Your task to perform on an android device: open app "DuckDuckGo Privacy Browser" (install if not already installed), go to login, and select forgot password Image 0: 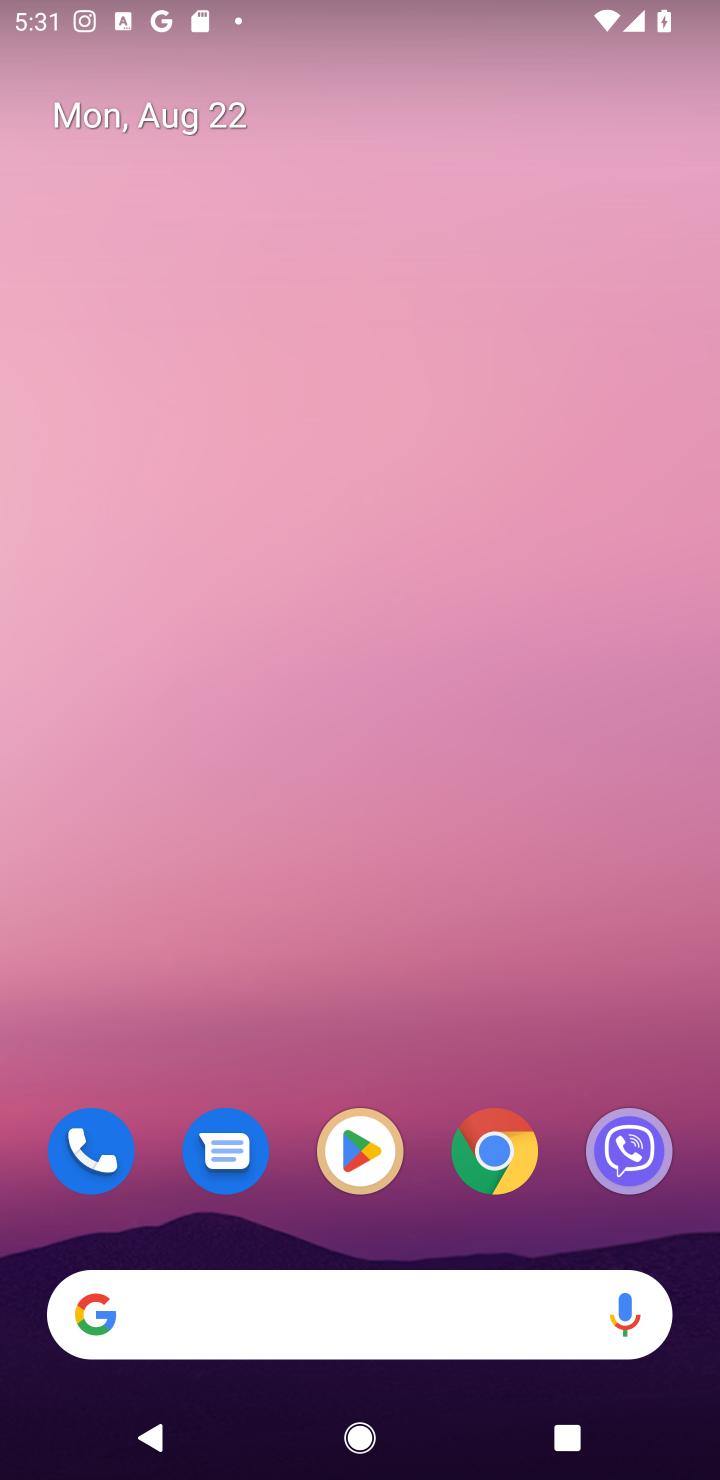
Step 0: press home button
Your task to perform on an android device: open app "DuckDuckGo Privacy Browser" (install if not already installed), go to login, and select forgot password Image 1: 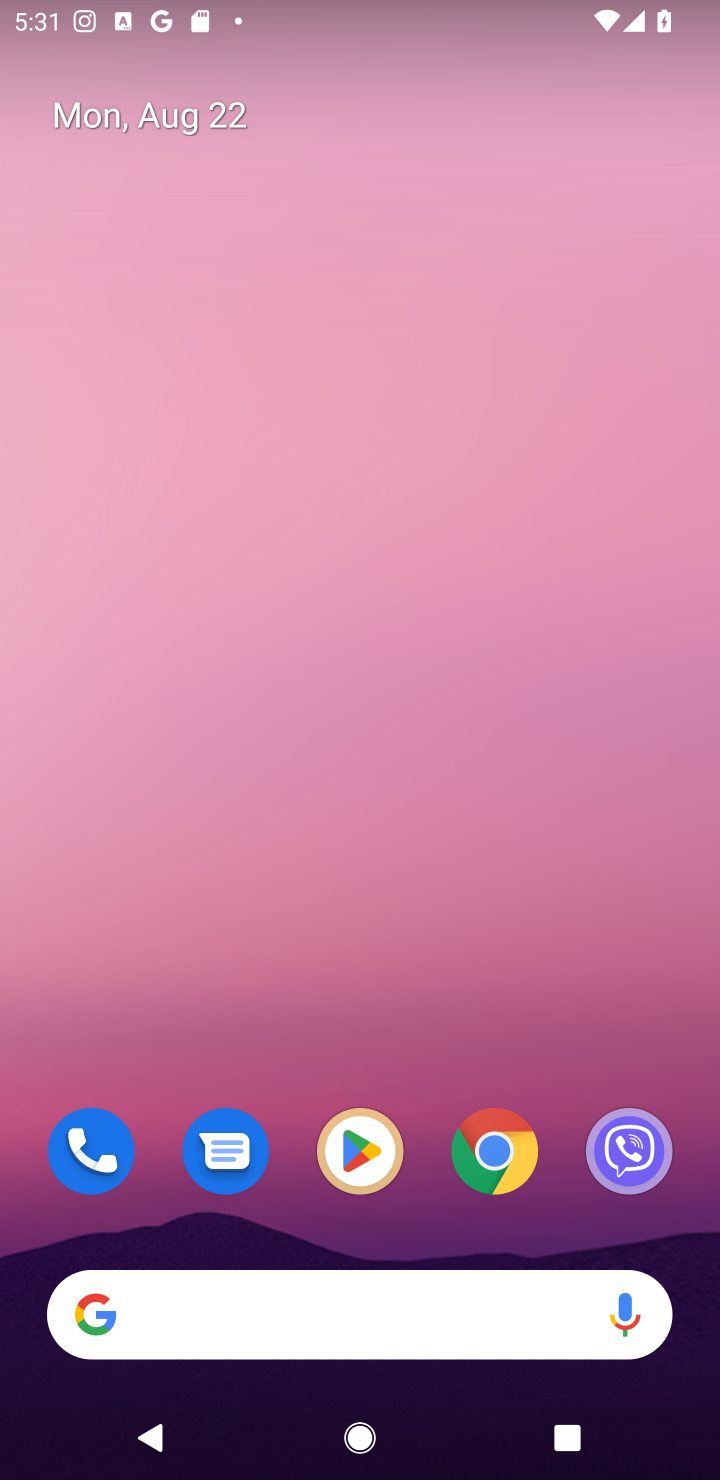
Step 1: click (342, 1149)
Your task to perform on an android device: open app "DuckDuckGo Privacy Browser" (install if not already installed), go to login, and select forgot password Image 2: 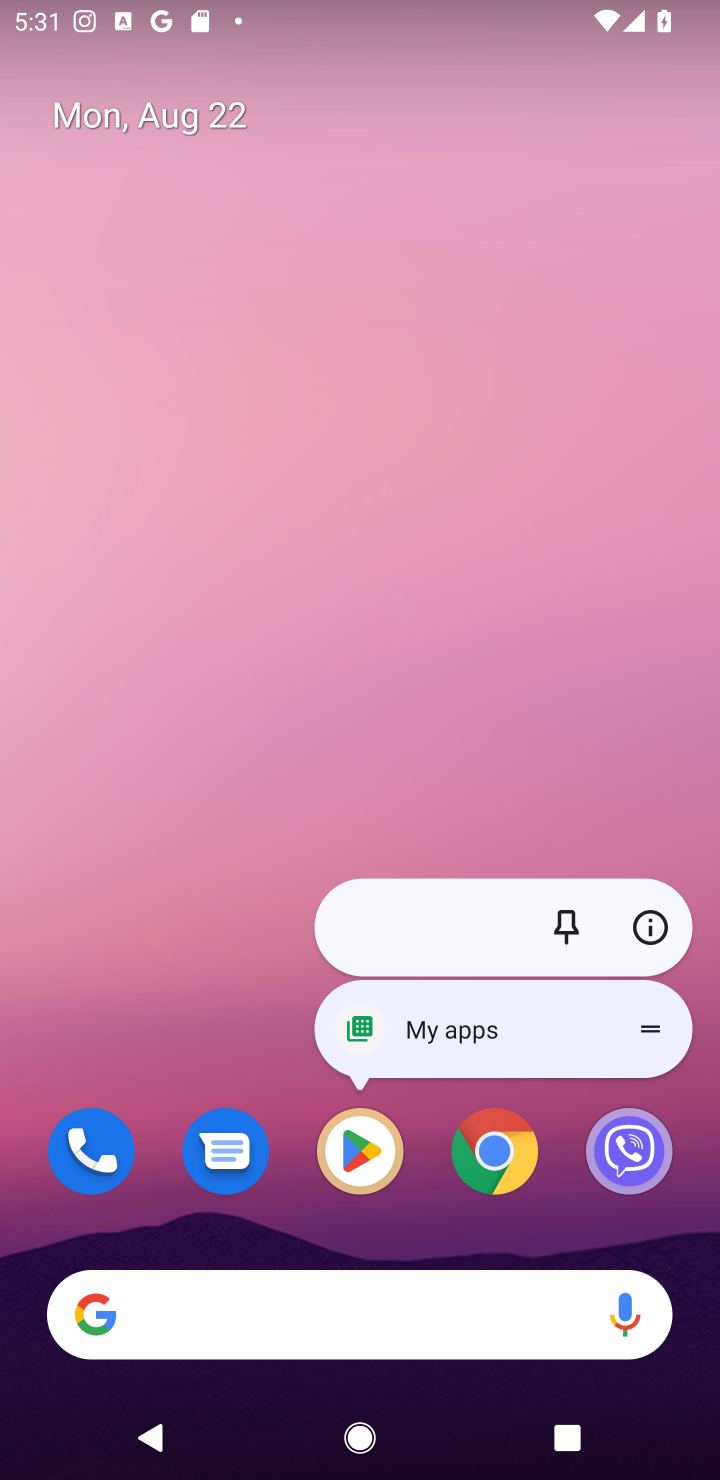
Step 2: click (345, 1161)
Your task to perform on an android device: open app "DuckDuckGo Privacy Browser" (install if not already installed), go to login, and select forgot password Image 3: 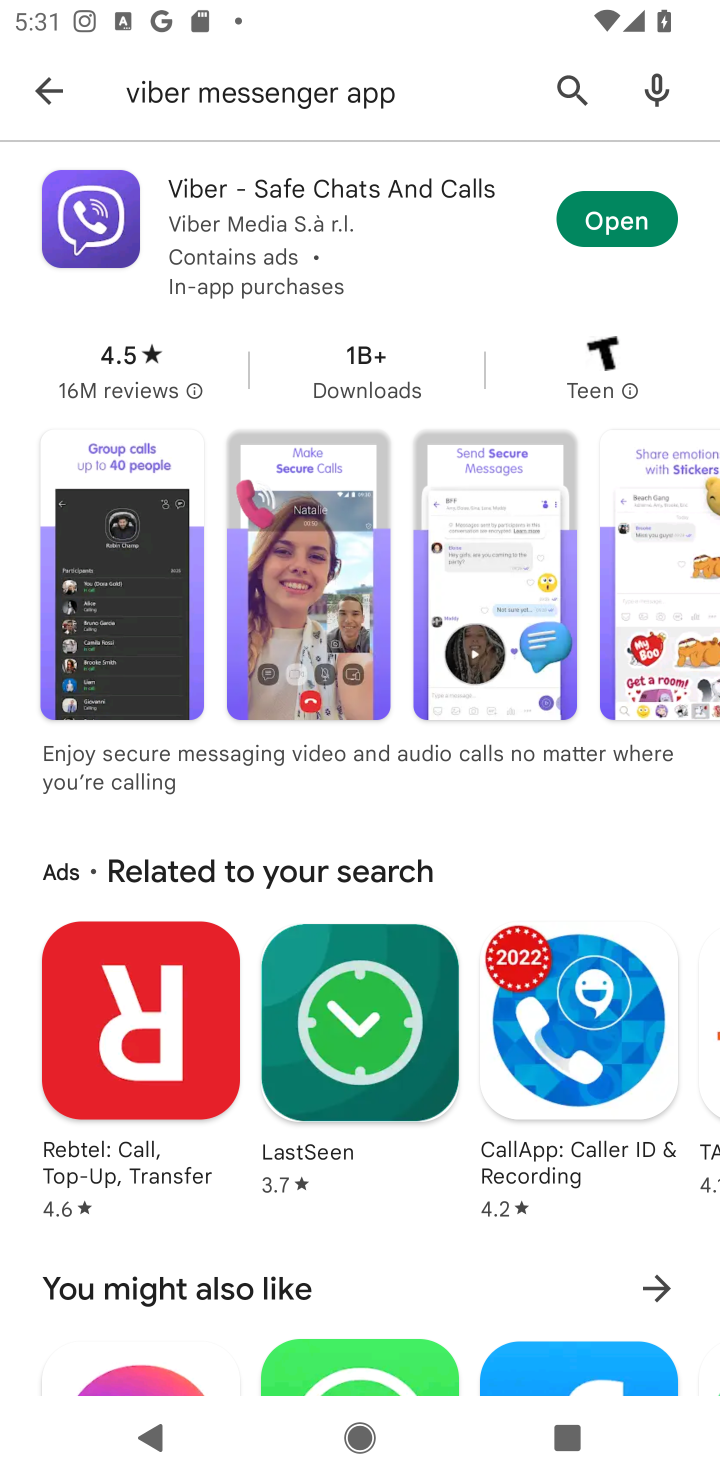
Step 3: click (562, 81)
Your task to perform on an android device: open app "DuckDuckGo Privacy Browser" (install if not already installed), go to login, and select forgot password Image 4: 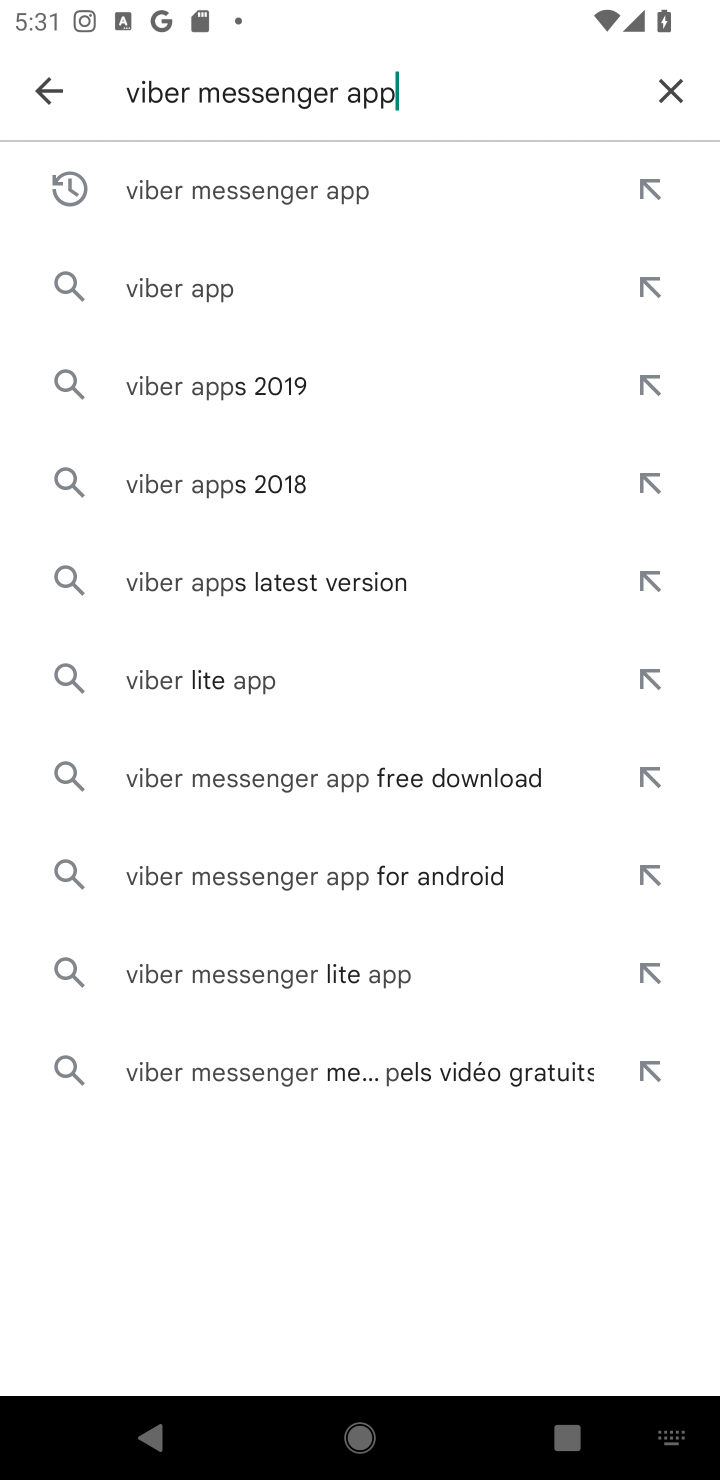
Step 4: click (666, 78)
Your task to perform on an android device: open app "DuckDuckGo Privacy Browser" (install if not already installed), go to login, and select forgot password Image 5: 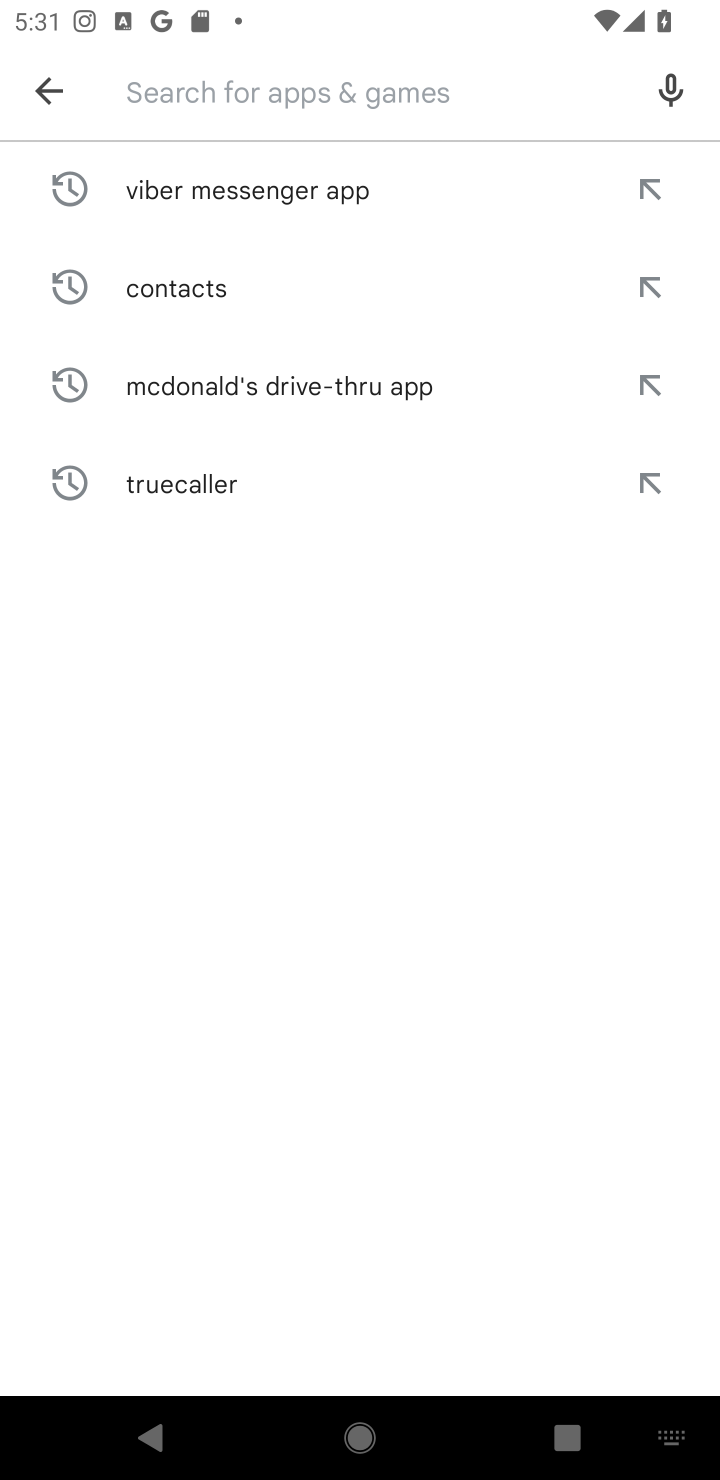
Step 5: type "DuckDuckGo Privacy Browser"
Your task to perform on an android device: open app "DuckDuckGo Privacy Browser" (install if not already installed), go to login, and select forgot password Image 6: 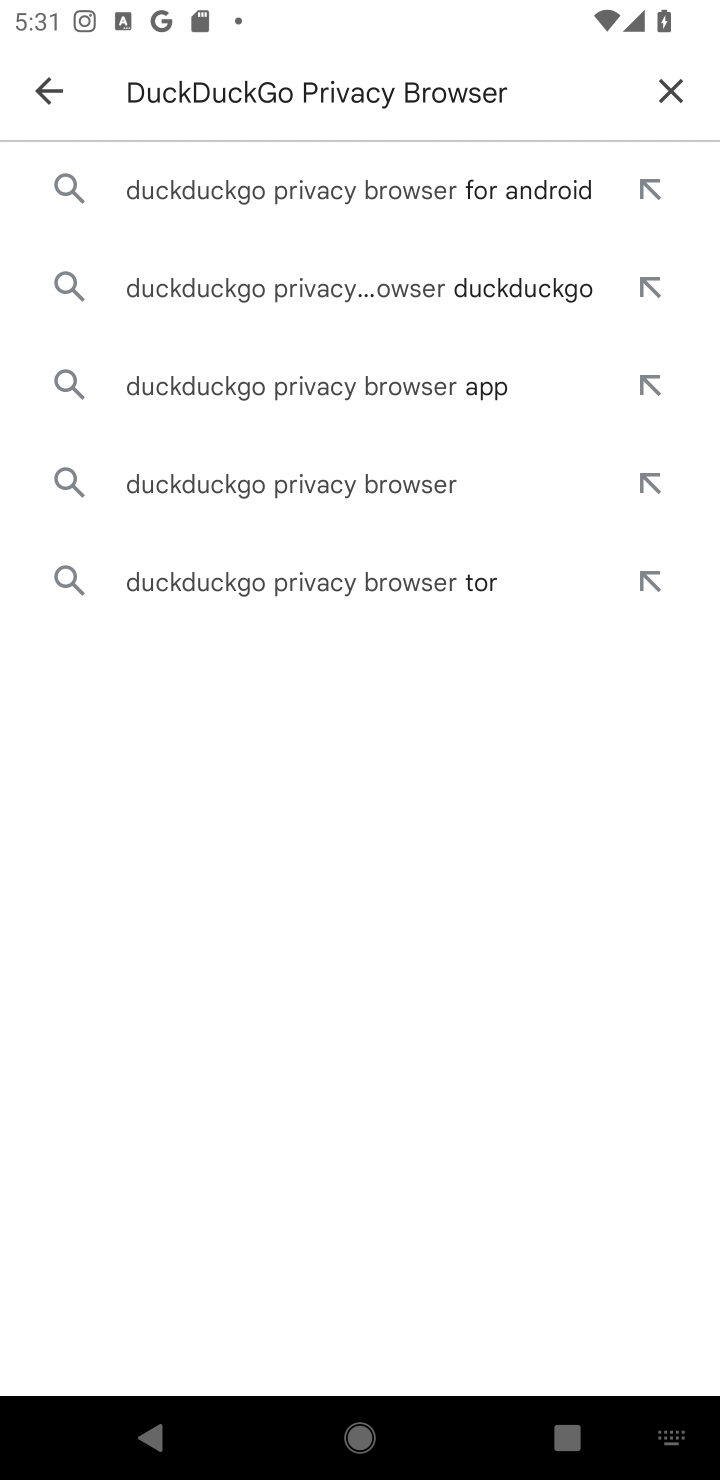
Step 6: click (374, 189)
Your task to perform on an android device: open app "DuckDuckGo Privacy Browser" (install if not already installed), go to login, and select forgot password Image 7: 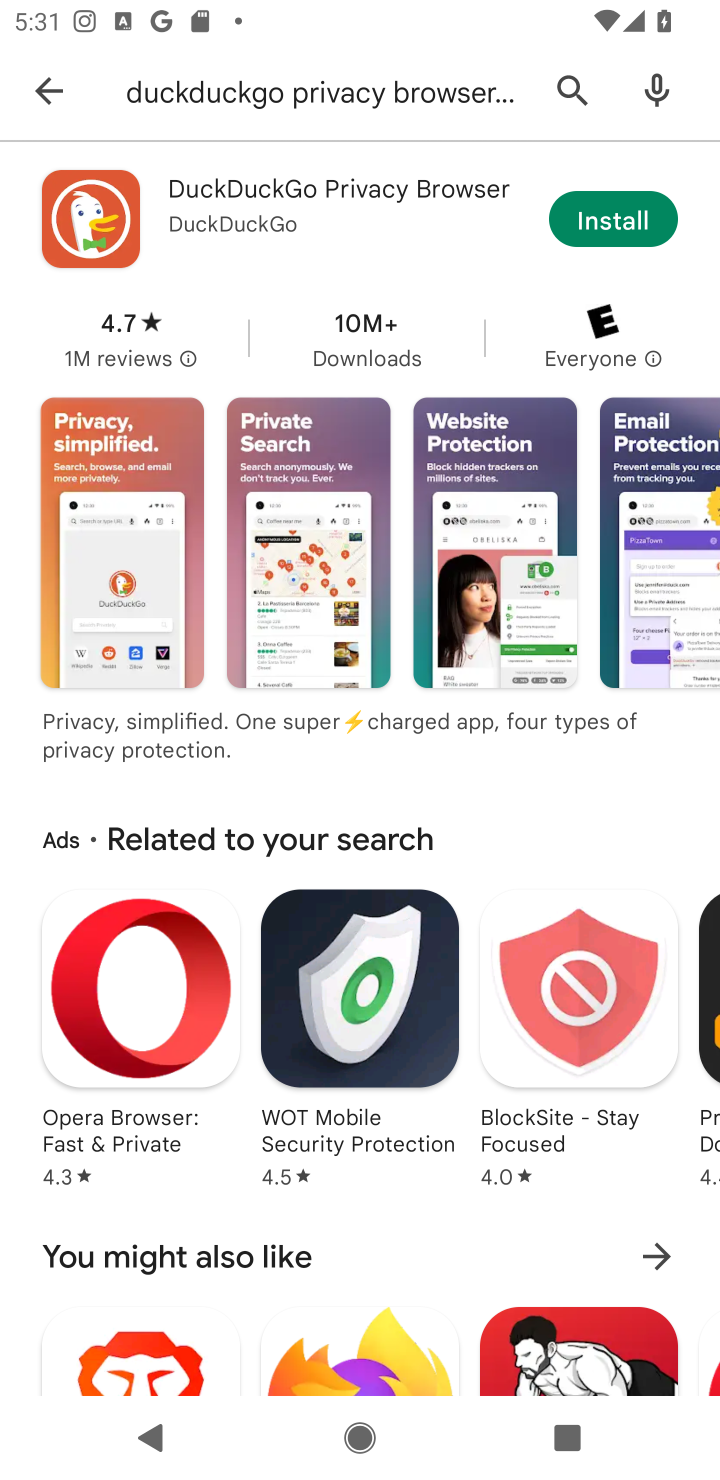
Step 7: click (607, 221)
Your task to perform on an android device: open app "DuckDuckGo Privacy Browser" (install if not already installed), go to login, and select forgot password Image 8: 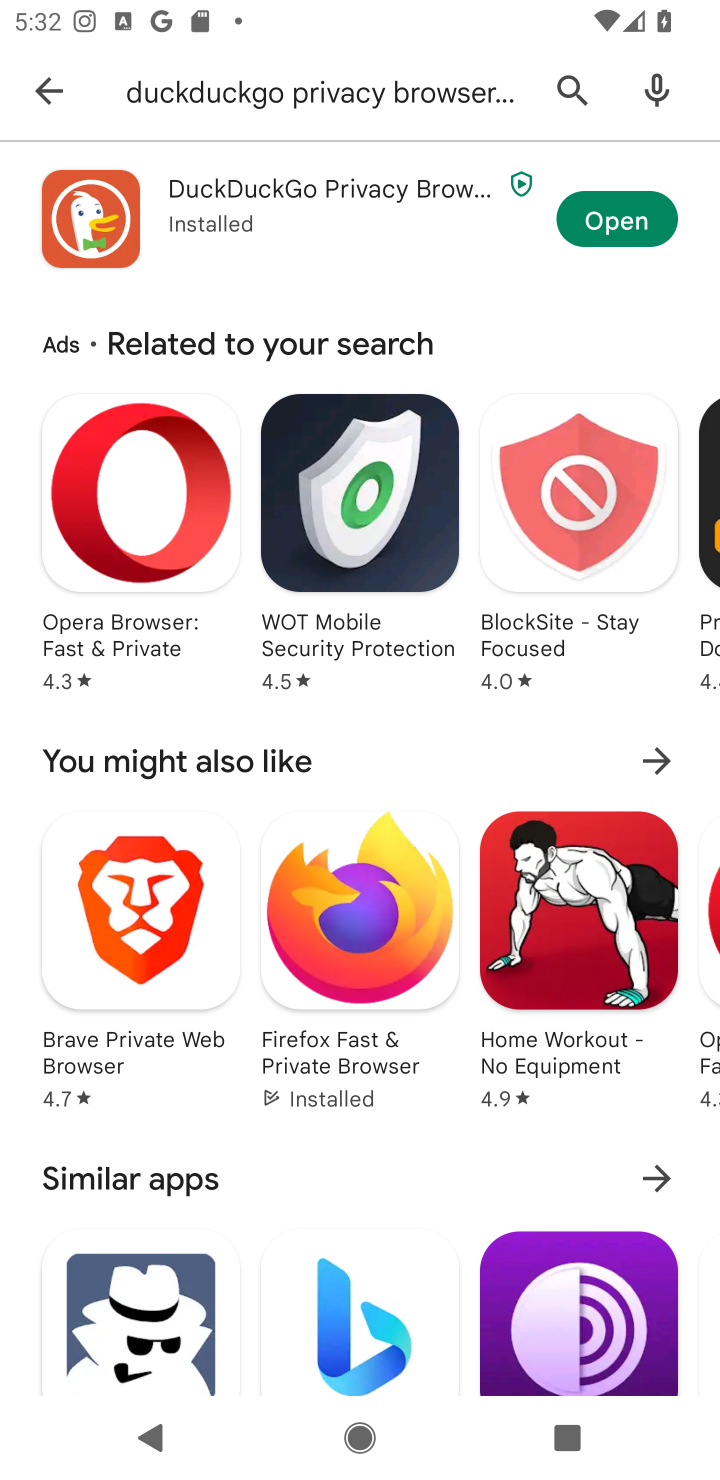
Step 8: click (616, 223)
Your task to perform on an android device: open app "DuckDuckGo Privacy Browser" (install if not already installed), go to login, and select forgot password Image 9: 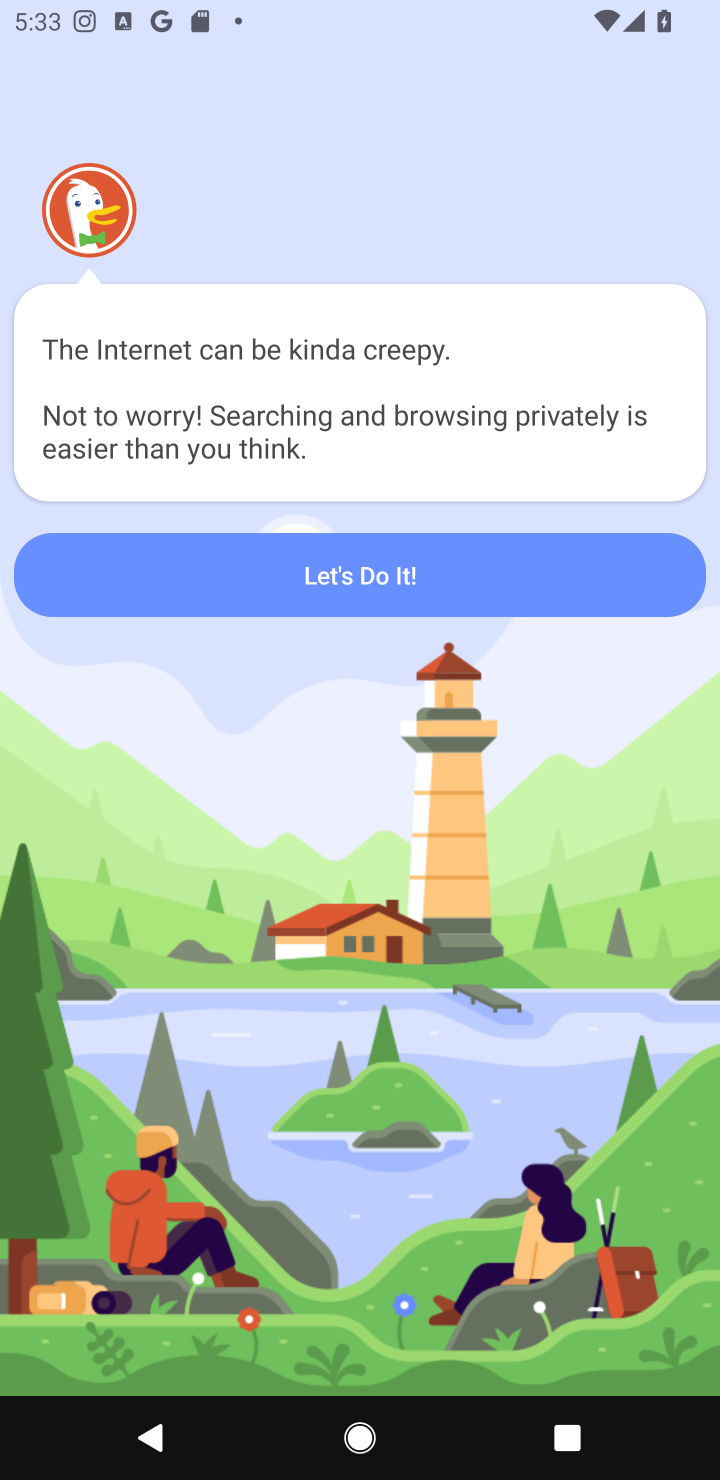
Step 9: click (461, 582)
Your task to perform on an android device: open app "DuckDuckGo Privacy Browser" (install if not already installed), go to login, and select forgot password Image 10: 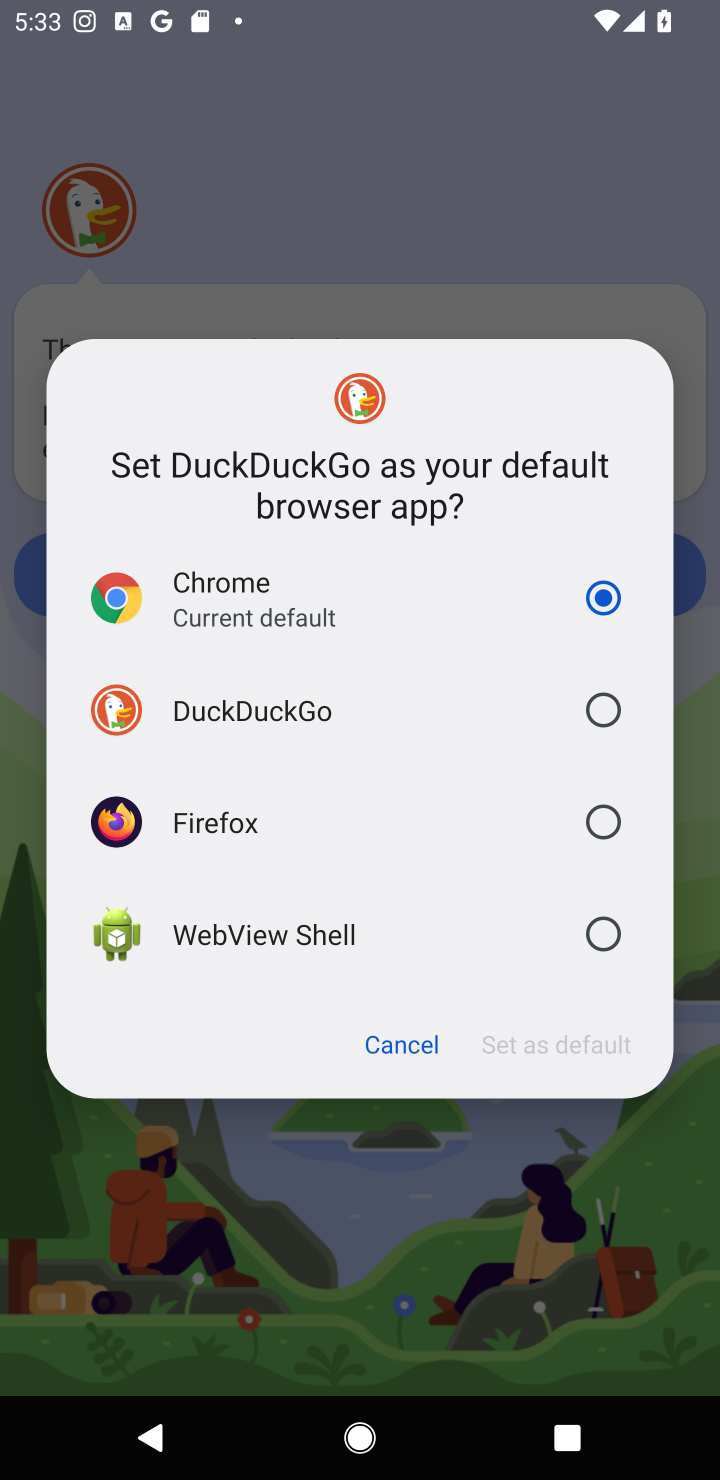
Step 10: task complete